Your task to perform on an android device: Open Chrome and go to the settings page Image 0: 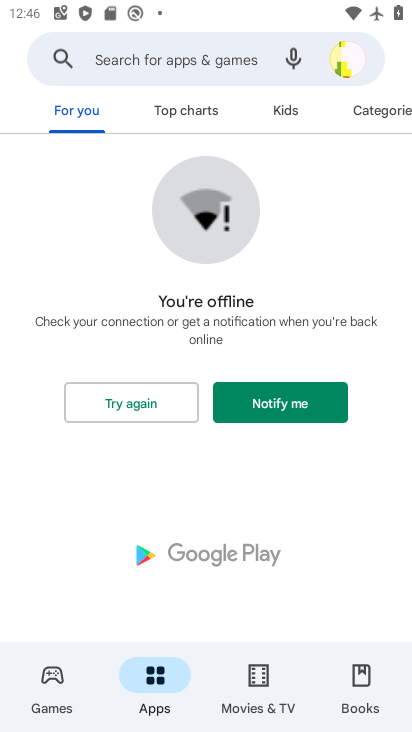
Step 0: press home button
Your task to perform on an android device: Open Chrome and go to the settings page Image 1: 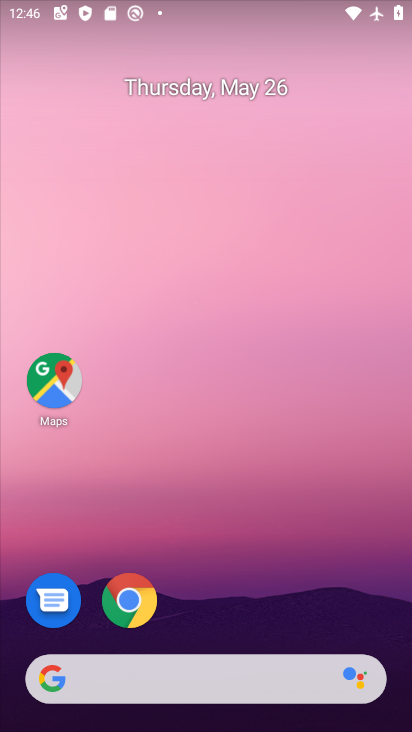
Step 1: click (126, 608)
Your task to perform on an android device: Open Chrome and go to the settings page Image 2: 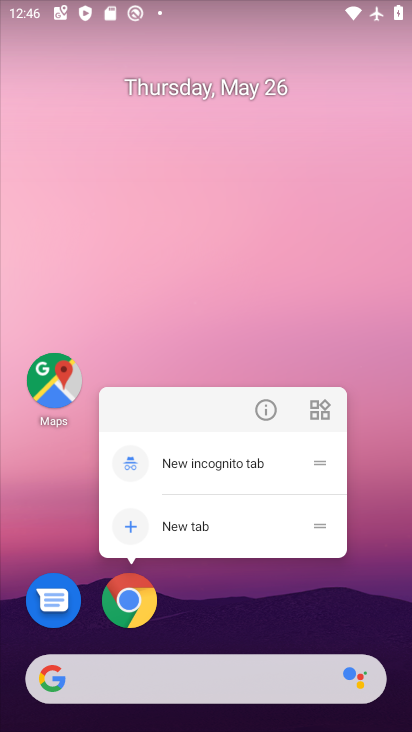
Step 2: click (126, 608)
Your task to perform on an android device: Open Chrome and go to the settings page Image 3: 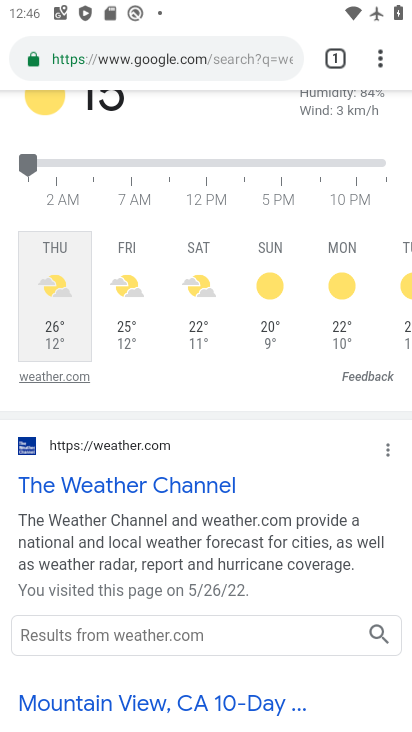
Step 3: task complete